Your task to perform on an android device: View the shopping cart on amazon.com. Image 0: 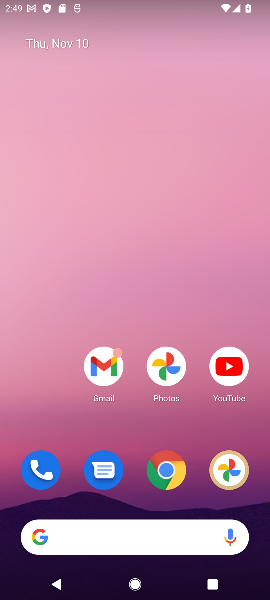
Step 0: click (169, 466)
Your task to perform on an android device: View the shopping cart on amazon.com. Image 1: 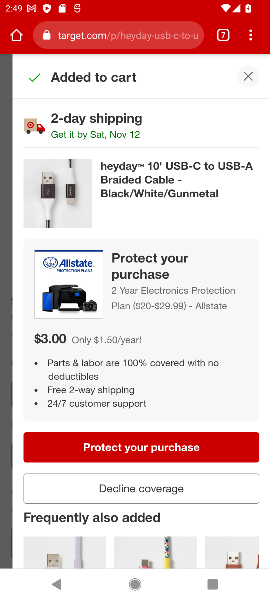
Step 1: click (214, 39)
Your task to perform on an android device: View the shopping cart on amazon.com. Image 2: 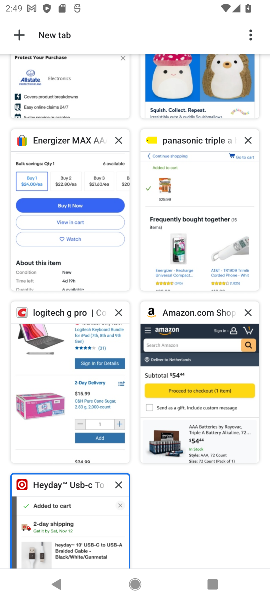
Step 2: click (175, 378)
Your task to perform on an android device: View the shopping cart on amazon.com. Image 3: 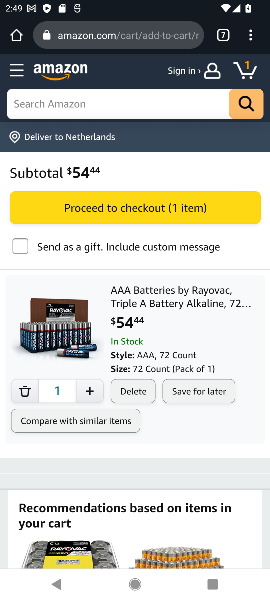
Step 3: task complete